Your task to perform on an android device: Go to accessibility settings Image 0: 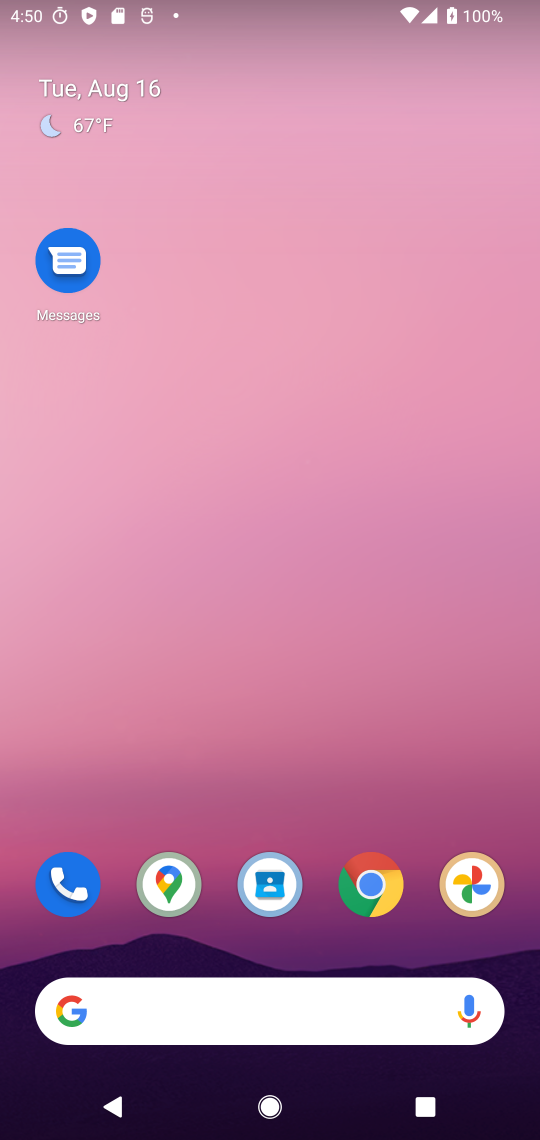
Step 0: drag from (32, 1057) to (277, 341)
Your task to perform on an android device: Go to accessibility settings Image 1: 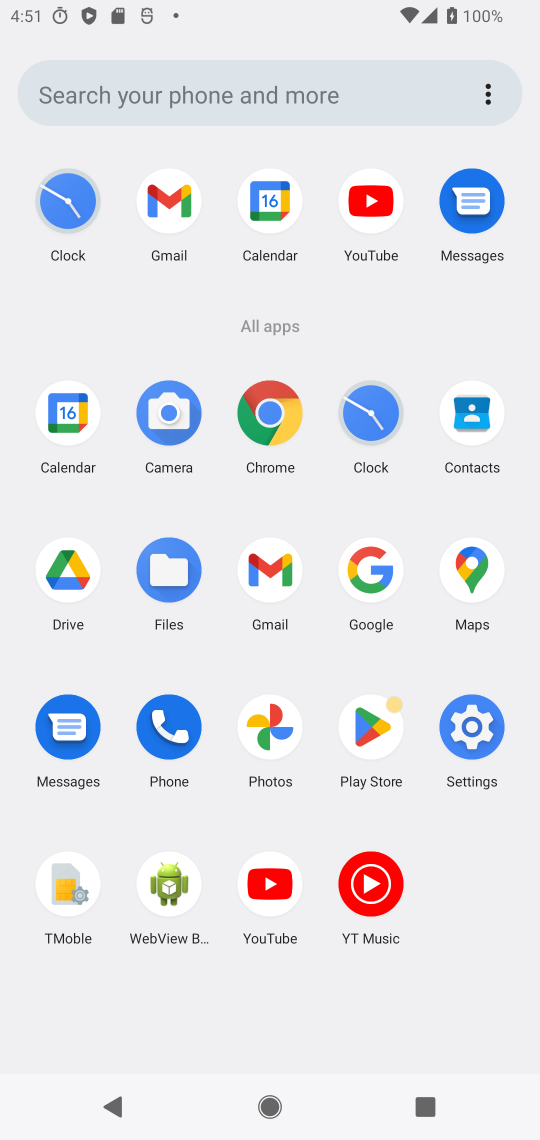
Step 1: click (460, 711)
Your task to perform on an android device: Go to accessibility settings Image 2: 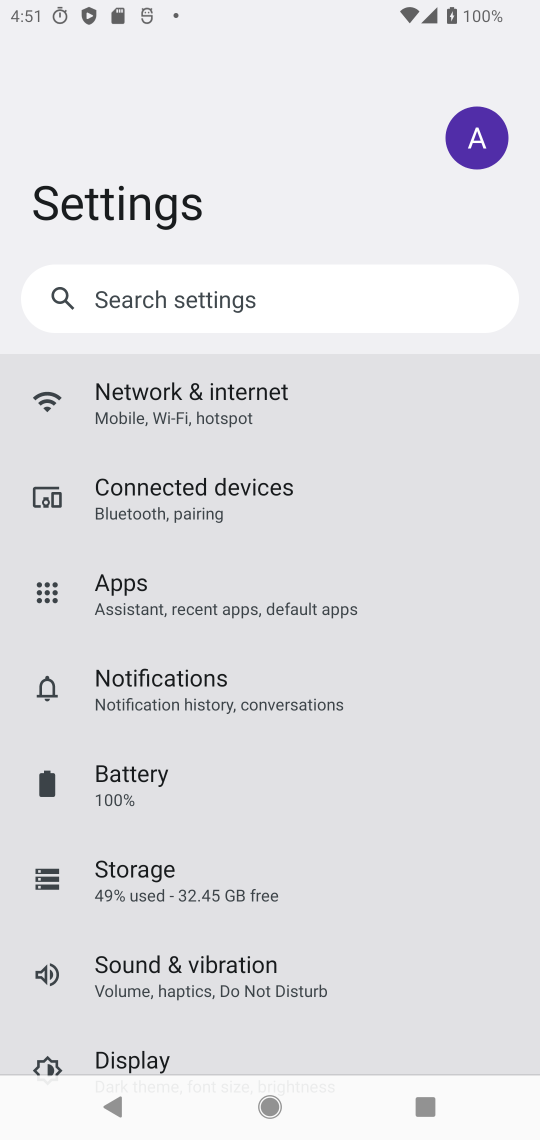
Step 2: drag from (408, 936) to (449, 417)
Your task to perform on an android device: Go to accessibility settings Image 3: 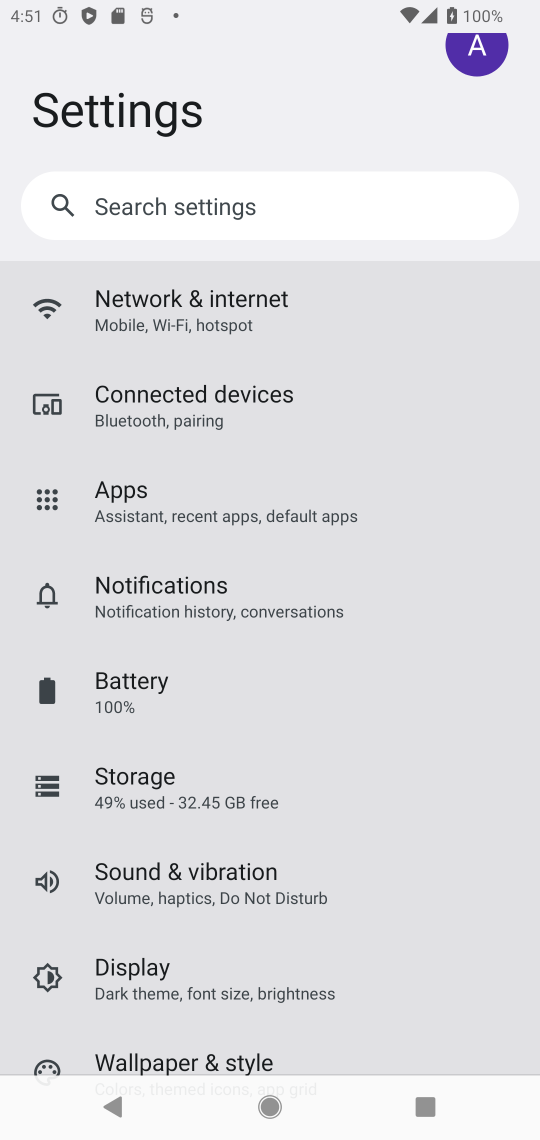
Step 3: drag from (388, 1007) to (525, 483)
Your task to perform on an android device: Go to accessibility settings Image 4: 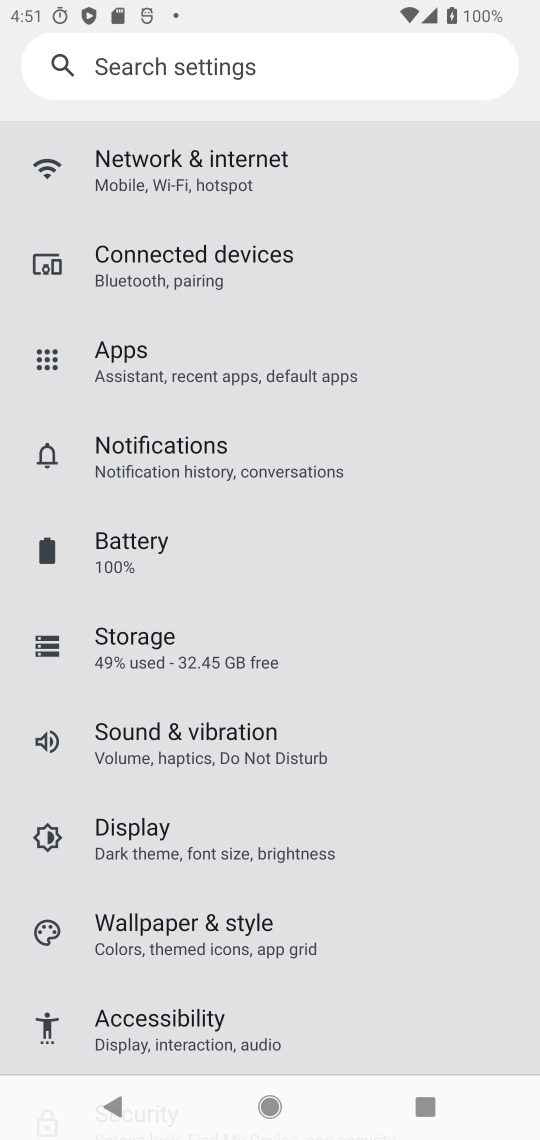
Step 4: drag from (416, 1032) to (439, 459)
Your task to perform on an android device: Go to accessibility settings Image 5: 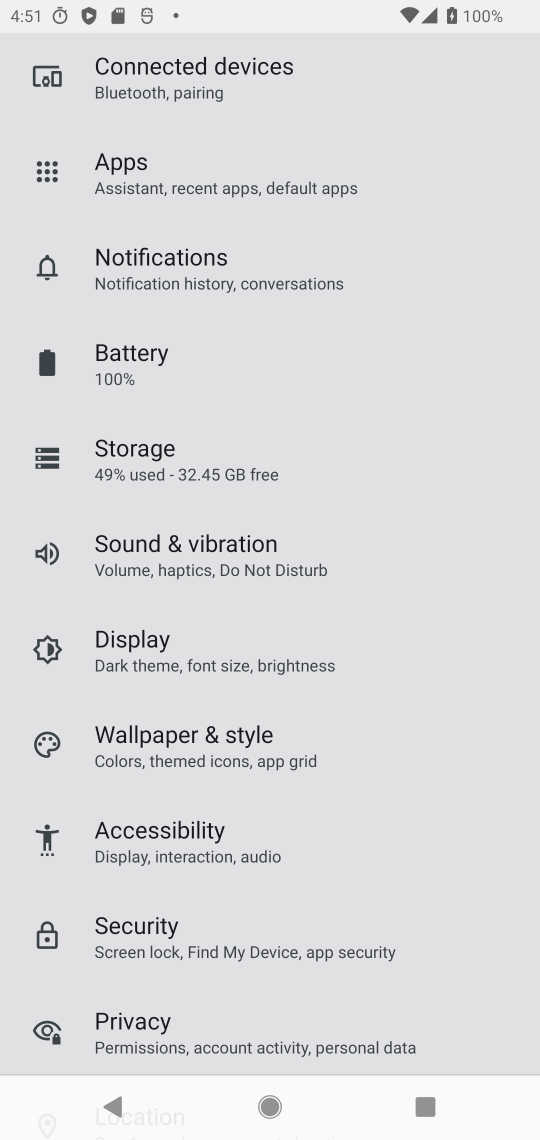
Step 5: click (169, 848)
Your task to perform on an android device: Go to accessibility settings Image 6: 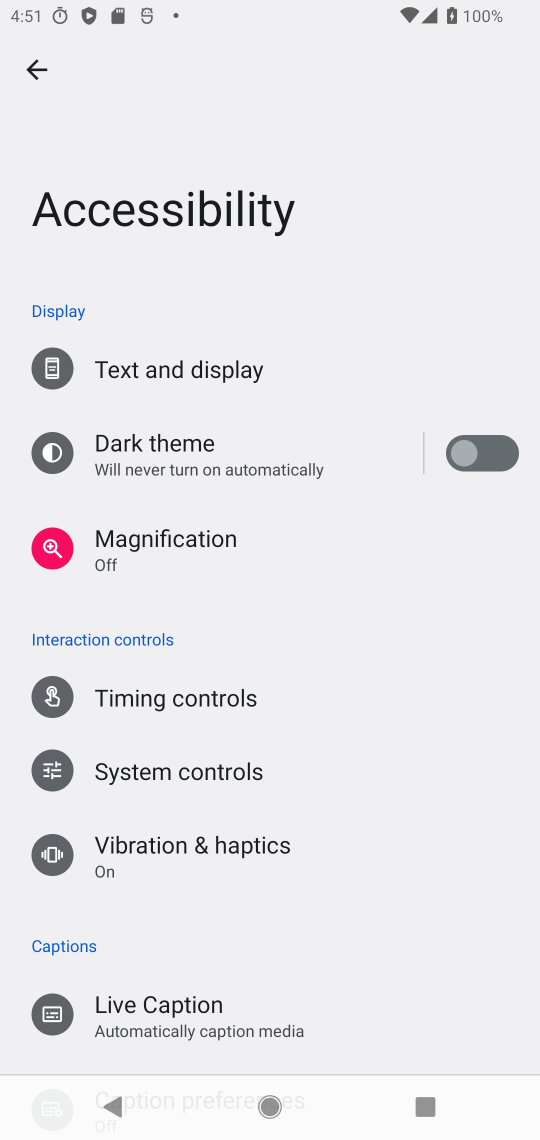
Step 6: task complete